Your task to perform on an android device: turn off data saver in the chrome app Image 0: 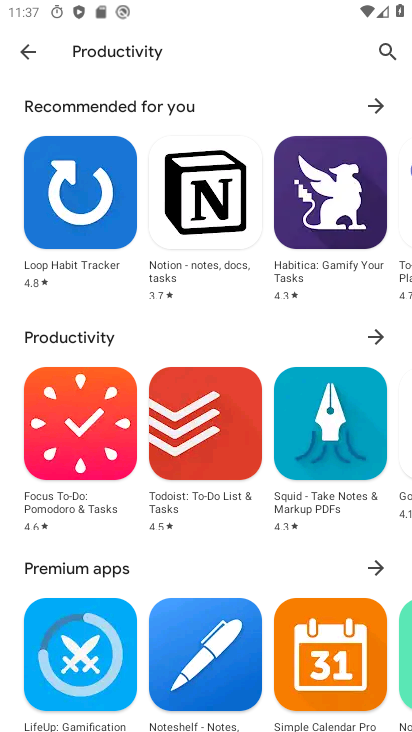
Step 0: press home button
Your task to perform on an android device: turn off data saver in the chrome app Image 1: 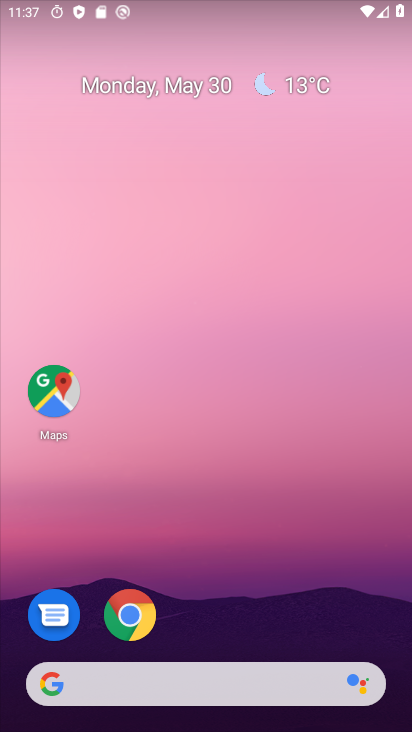
Step 1: click (146, 627)
Your task to perform on an android device: turn off data saver in the chrome app Image 2: 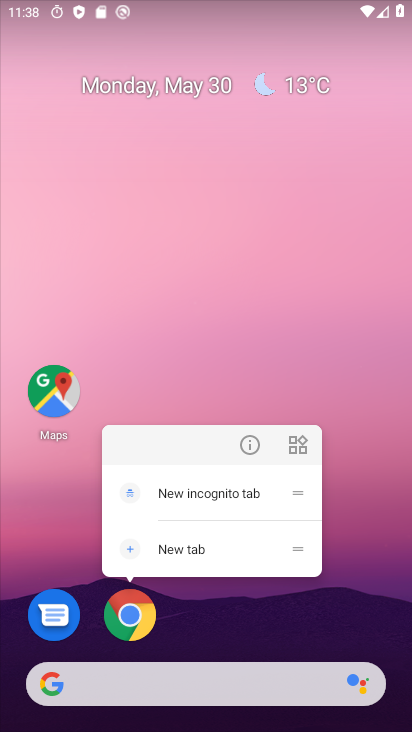
Step 2: click (130, 625)
Your task to perform on an android device: turn off data saver in the chrome app Image 3: 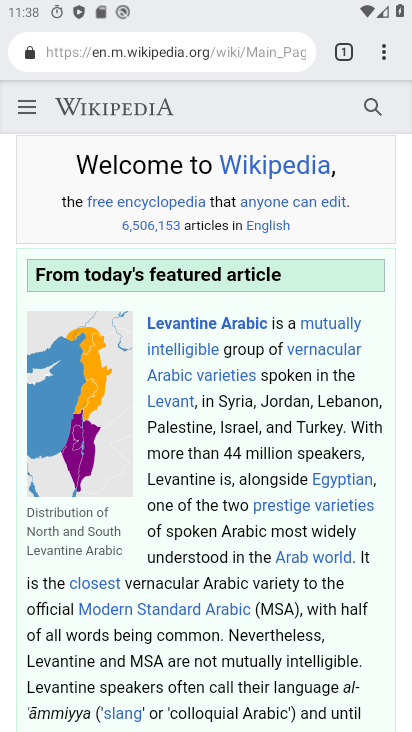
Step 3: drag from (400, 55) to (269, 626)
Your task to perform on an android device: turn off data saver in the chrome app Image 4: 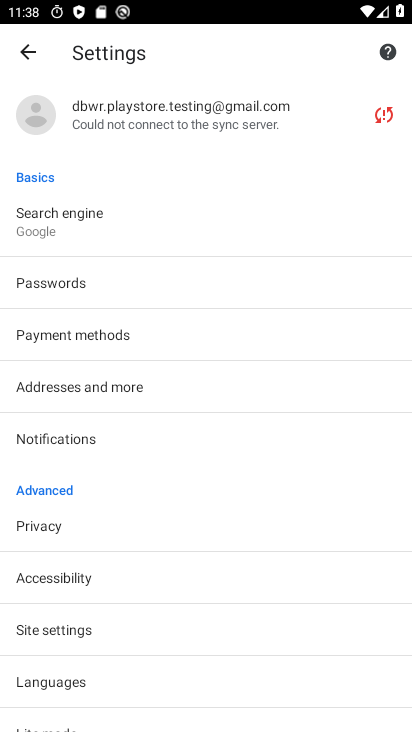
Step 4: drag from (107, 653) to (206, 274)
Your task to perform on an android device: turn off data saver in the chrome app Image 5: 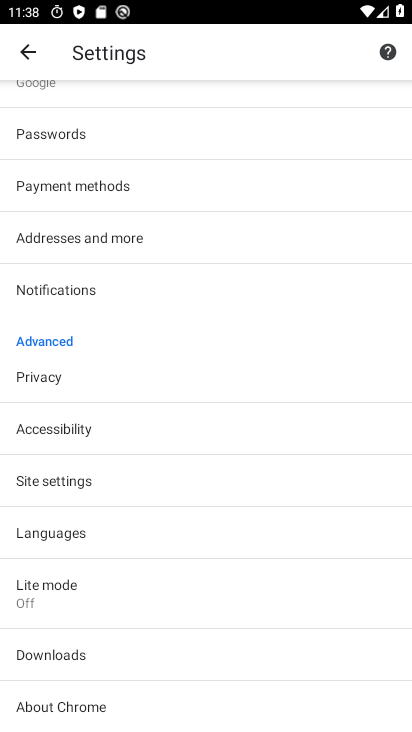
Step 5: click (186, 597)
Your task to perform on an android device: turn off data saver in the chrome app Image 6: 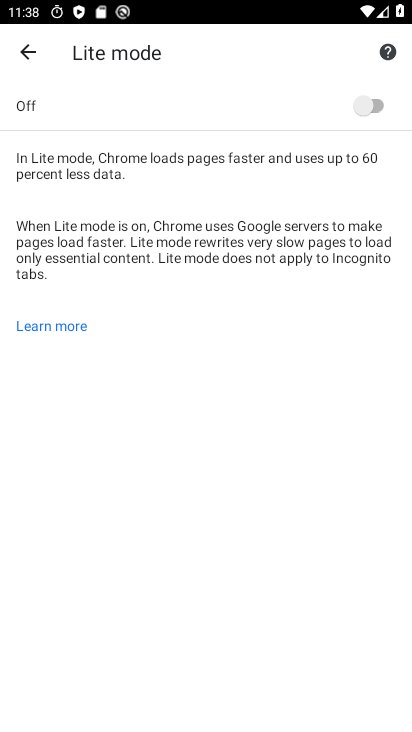
Step 6: task complete